Your task to perform on an android device: Search for pizza restaurants on Maps Image 0: 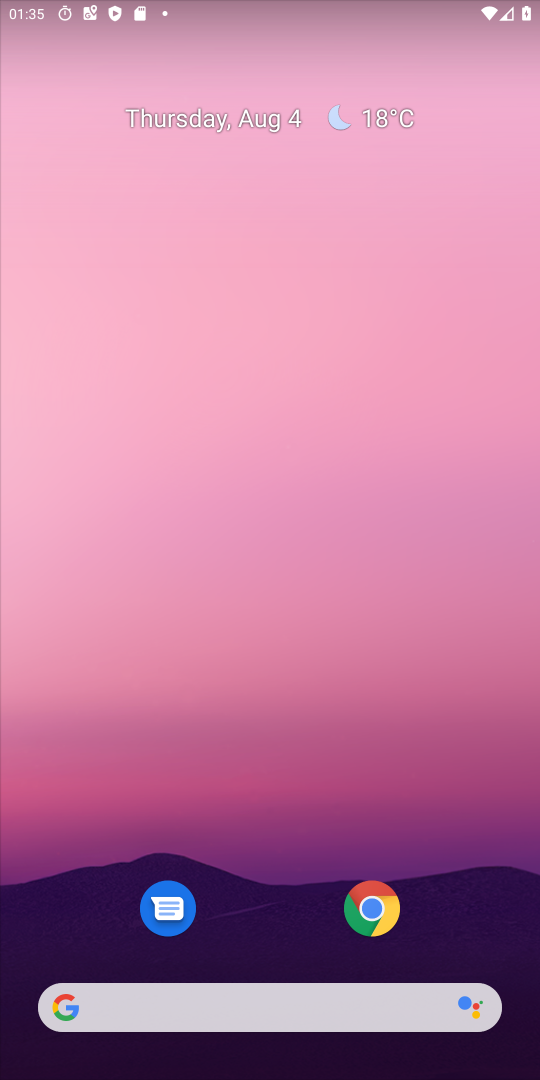
Step 0: press home button
Your task to perform on an android device: Search for pizza restaurants on Maps Image 1: 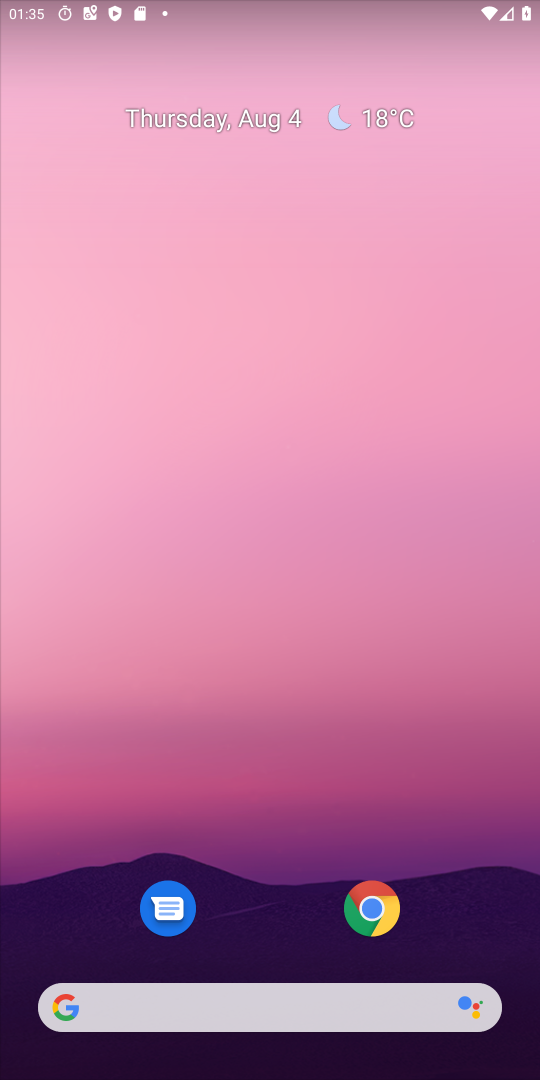
Step 1: drag from (311, 1035) to (288, 405)
Your task to perform on an android device: Search for pizza restaurants on Maps Image 2: 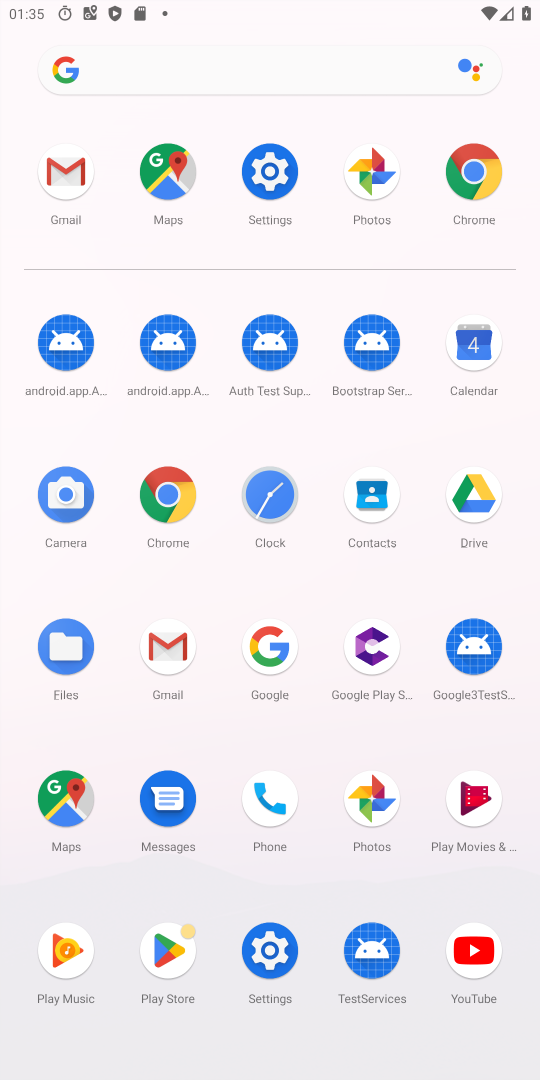
Step 2: click (172, 178)
Your task to perform on an android device: Search for pizza restaurants on Maps Image 3: 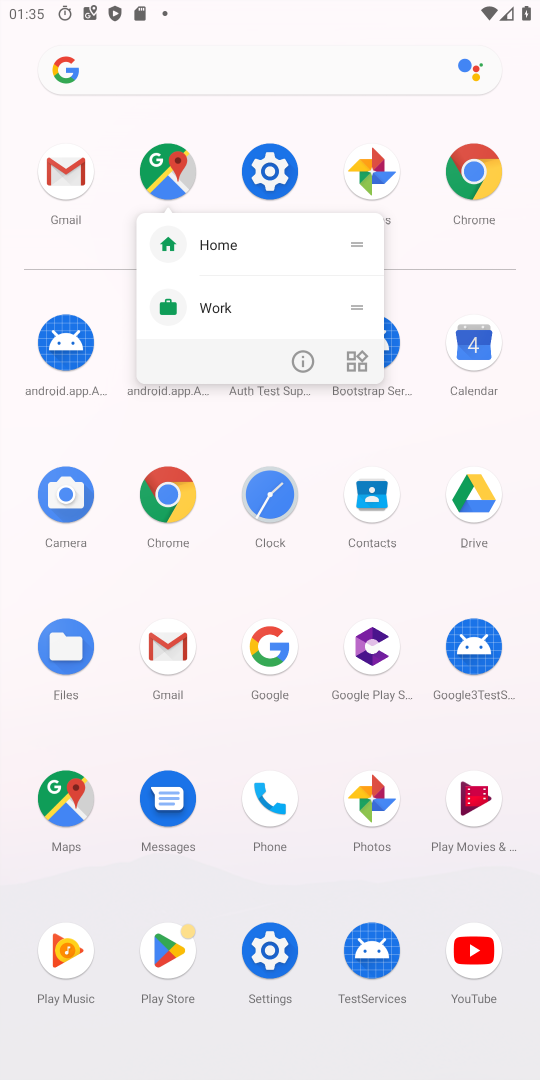
Step 3: click (158, 187)
Your task to perform on an android device: Search for pizza restaurants on Maps Image 4: 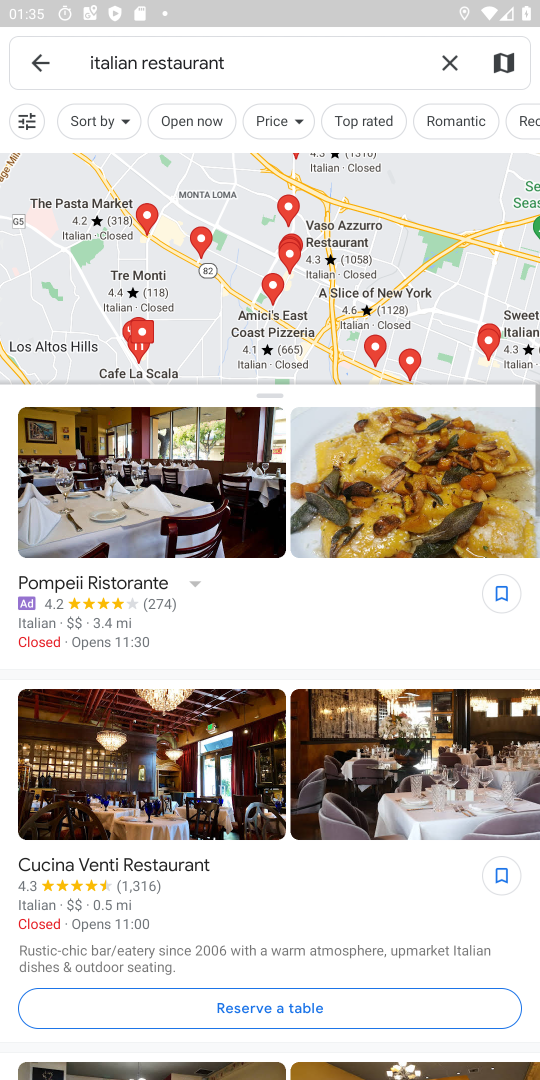
Step 4: click (446, 69)
Your task to perform on an android device: Search for pizza restaurants on Maps Image 5: 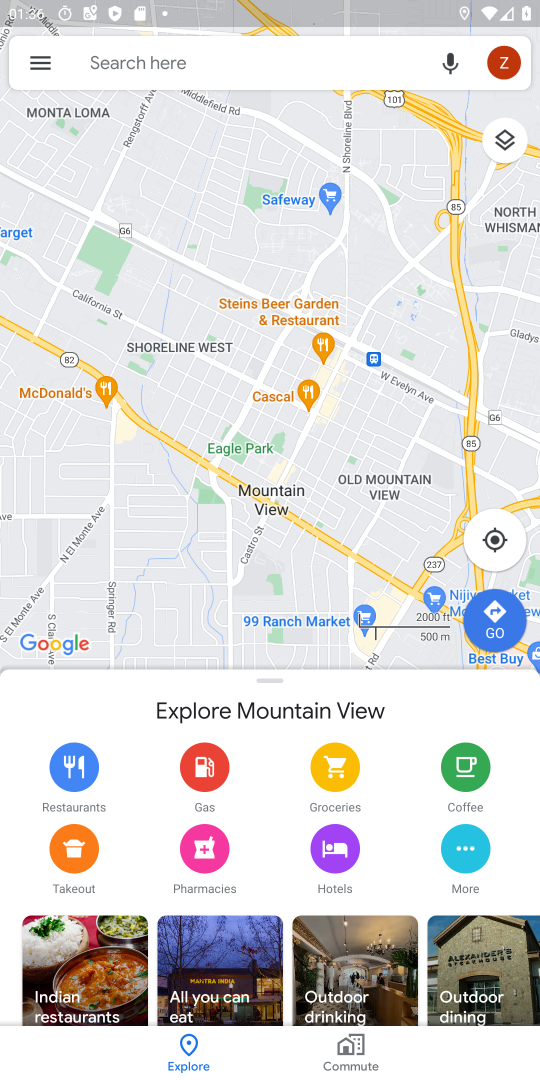
Step 5: click (257, 76)
Your task to perform on an android device: Search for pizza restaurants on Maps Image 6: 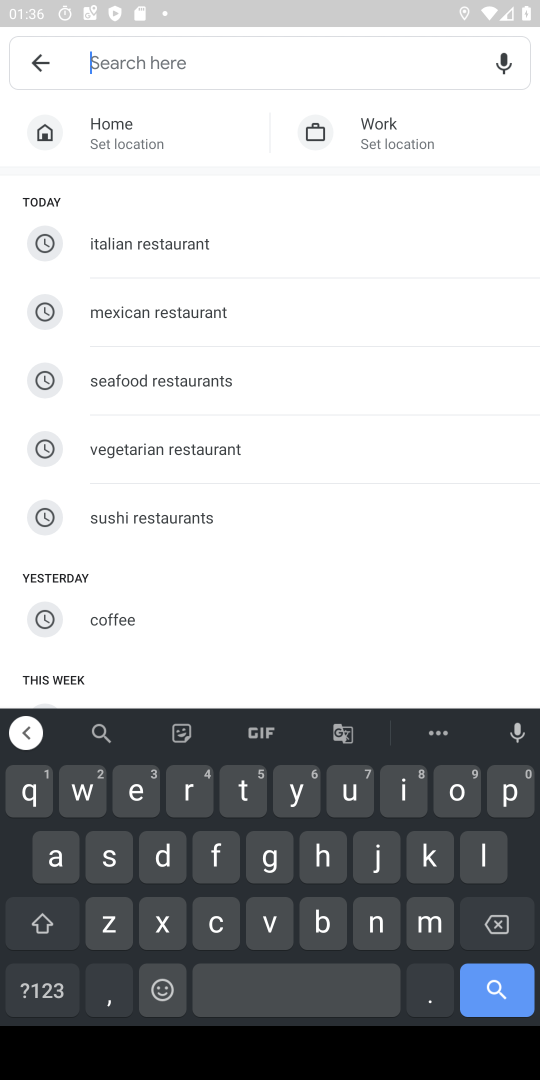
Step 6: click (509, 805)
Your task to perform on an android device: Search for pizza restaurants on Maps Image 7: 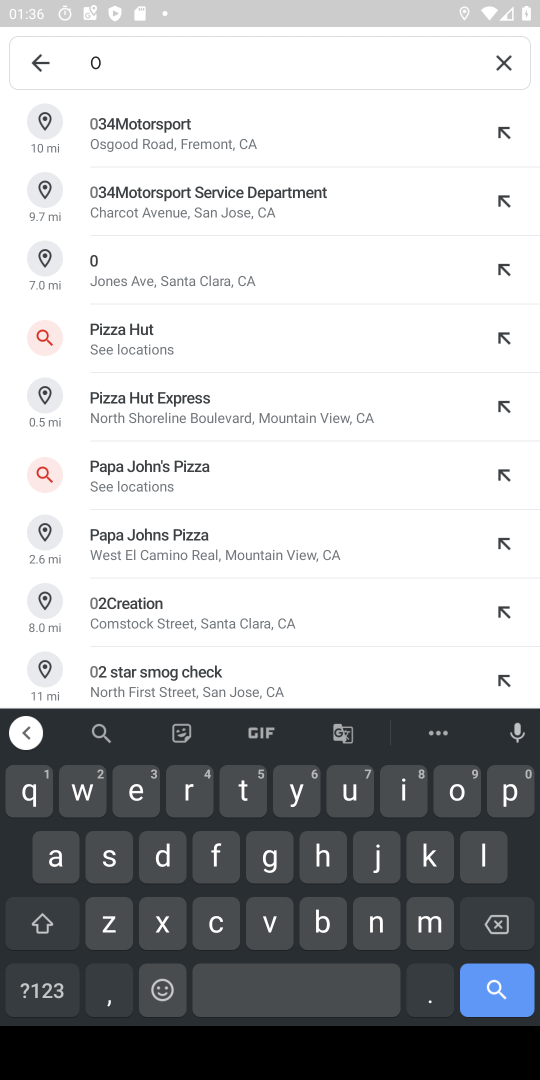
Step 7: click (494, 928)
Your task to perform on an android device: Search for pizza restaurants on Maps Image 8: 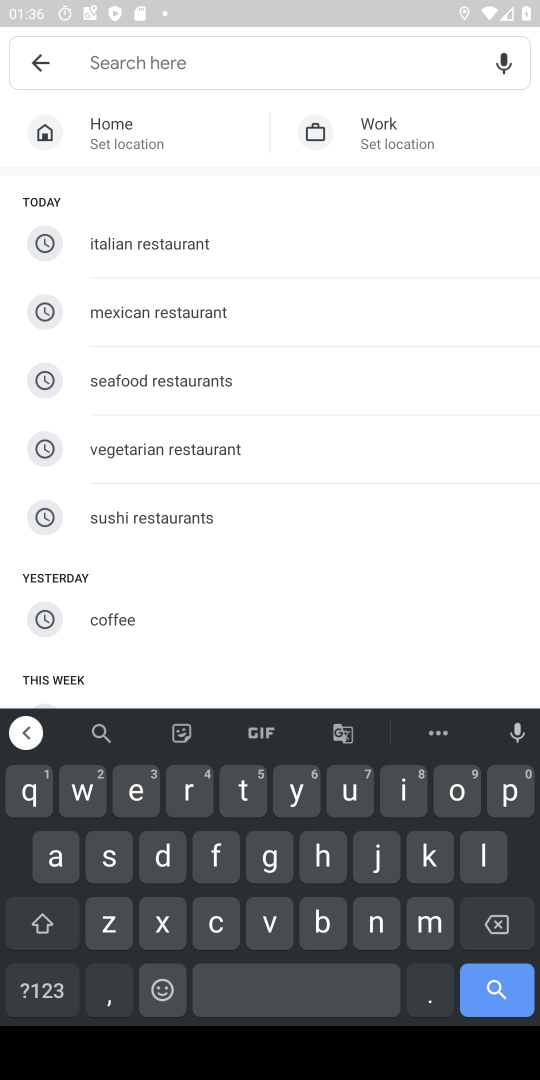
Step 8: click (513, 786)
Your task to perform on an android device: Search for pizza restaurants on Maps Image 9: 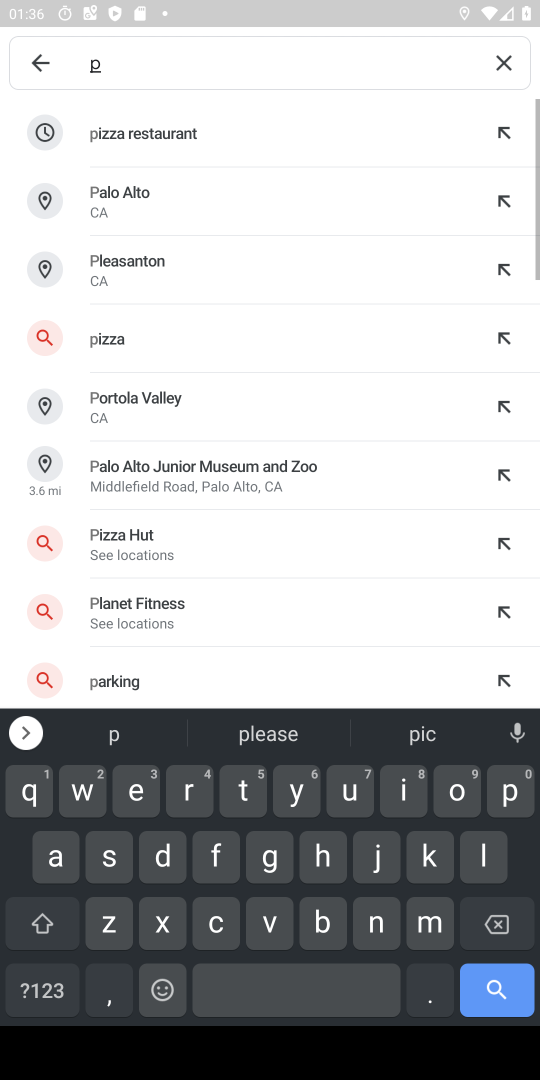
Step 9: click (407, 790)
Your task to perform on an android device: Search for pizza restaurants on Maps Image 10: 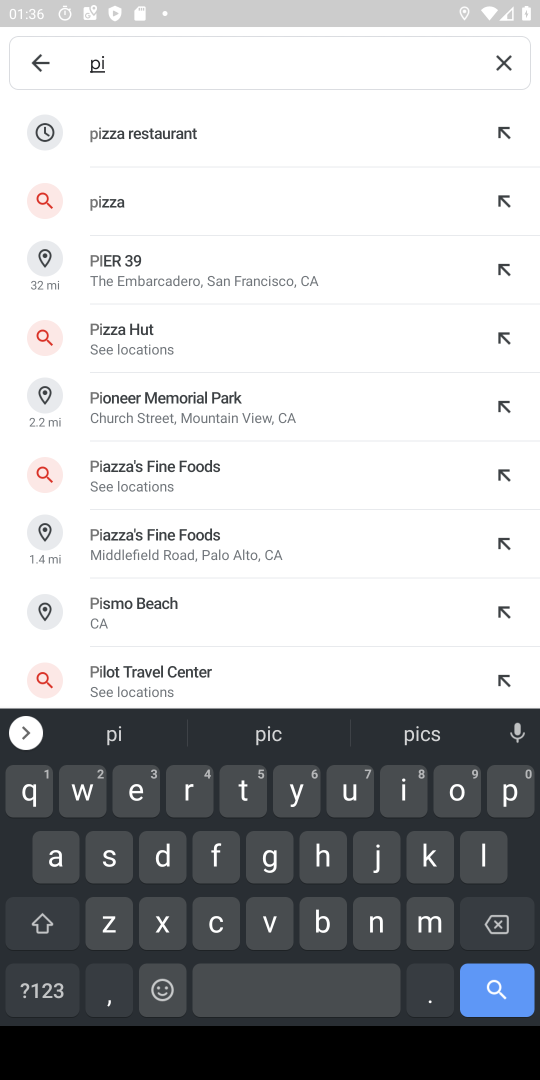
Step 10: click (127, 158)
Your task to perform on an android device: Search for pizza restaurants on Maps Image 11: 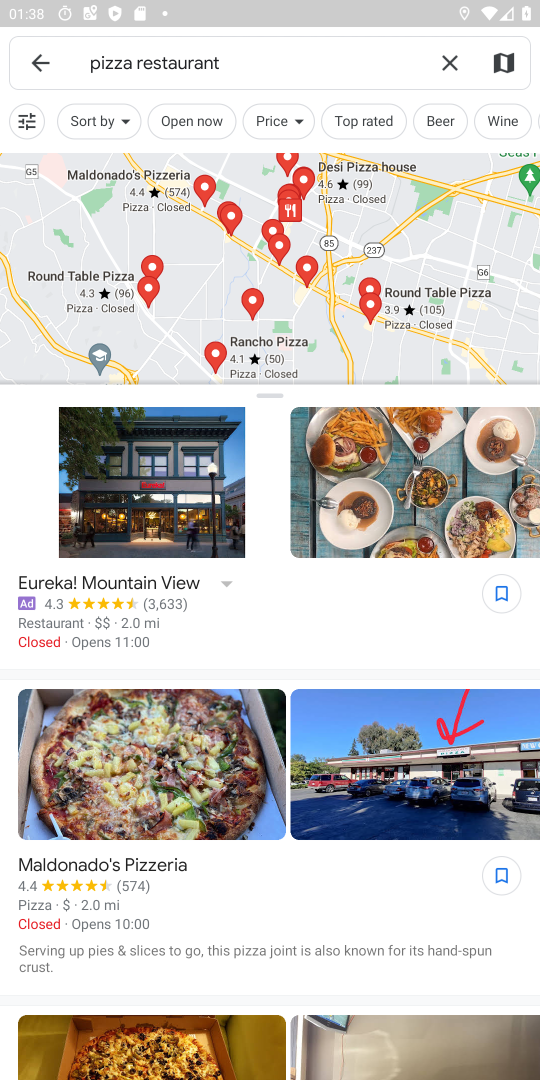
Step 11: task complete